Your task to perform on an android device: toggle notification dots Image 0: 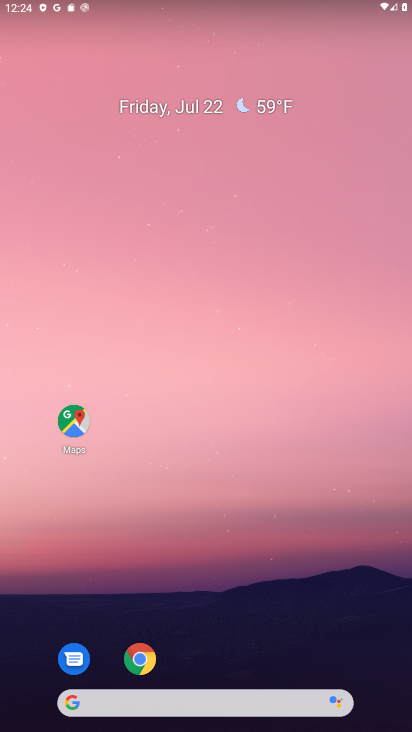
Step 0: drag from (260, 662) to (212, 0)
Your task to perform on an android device: toggle notification dots Image 1: 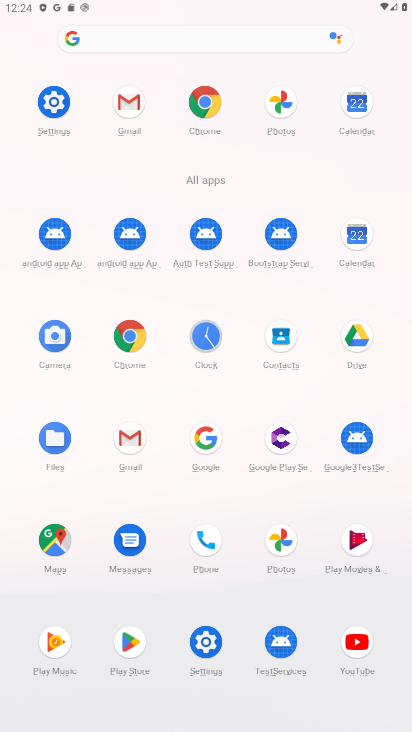
Step 1: click (66, 101)
Your task to perform on an android device: toggle notification dots Image 2: 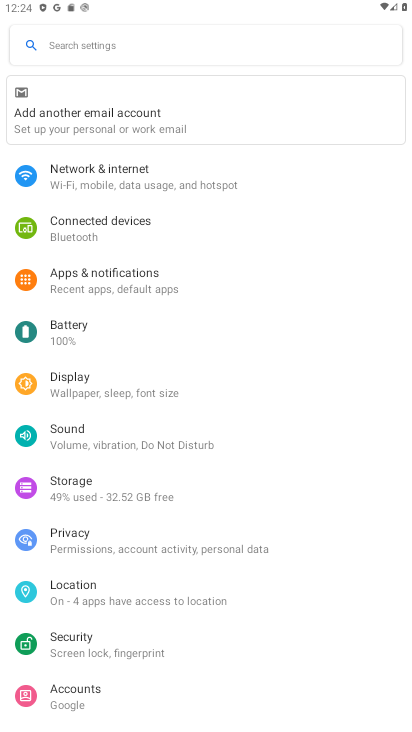
Step 2: click (113, 280)
Your task to perform on an android device: toggle notification dots Image 3: 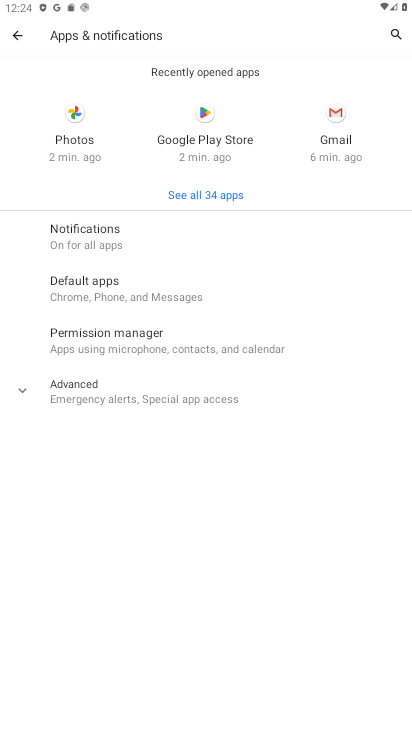
Step 3: click (54, 406)
Your task to perform on an android device: toggle notification dots Image 4: 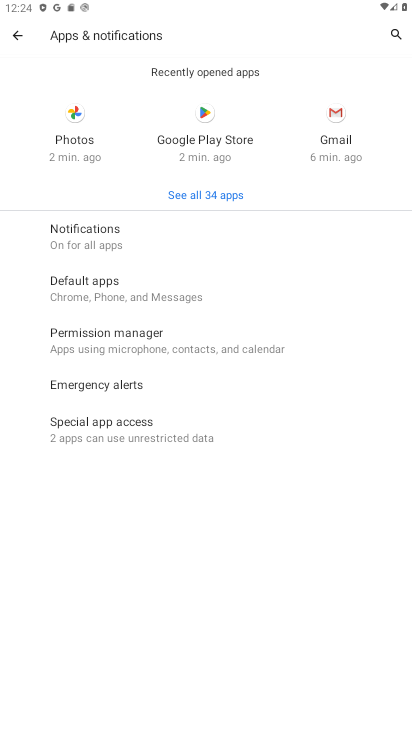
Step 4: click (58, 242)
Your task to perform on an android device: toggle notification dots Image 5: 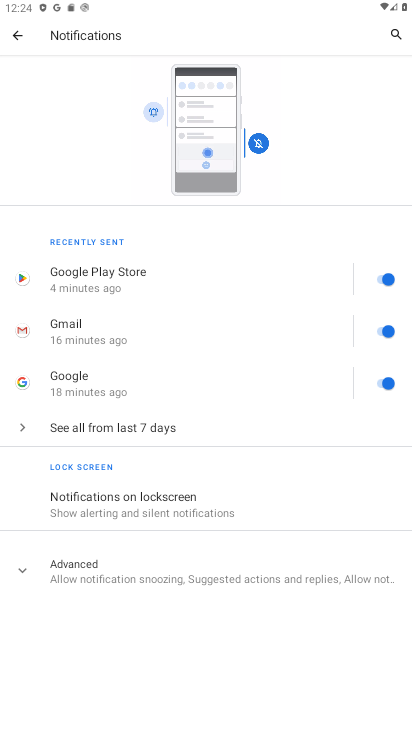
Step 5: click (91, 589)
Your task to perform on an android device: toggle notification dots Image 6: 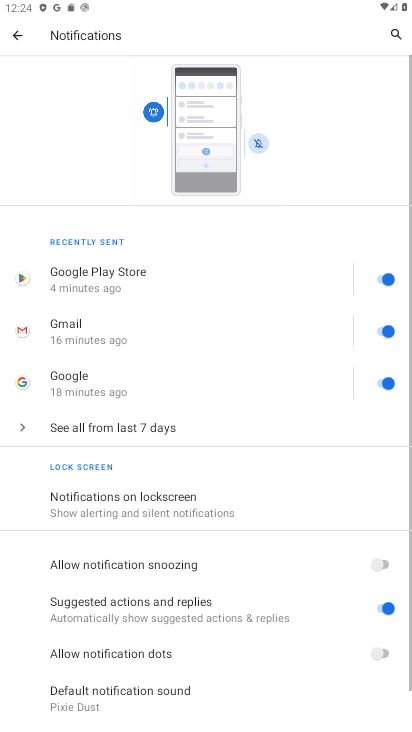
Step 6: drag from (117, 647) to (121, 296)
Your task to perform on an android device: toggle notification dots Image 7: 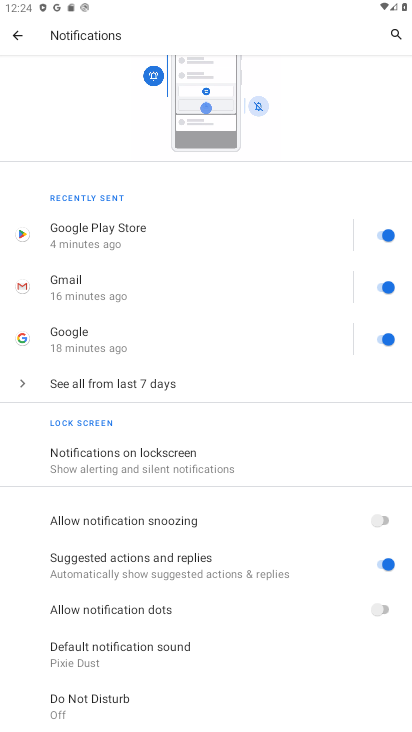
Step 7: click (381, 609)
Your task to perform on an android device: toggle notification dots Image 8: 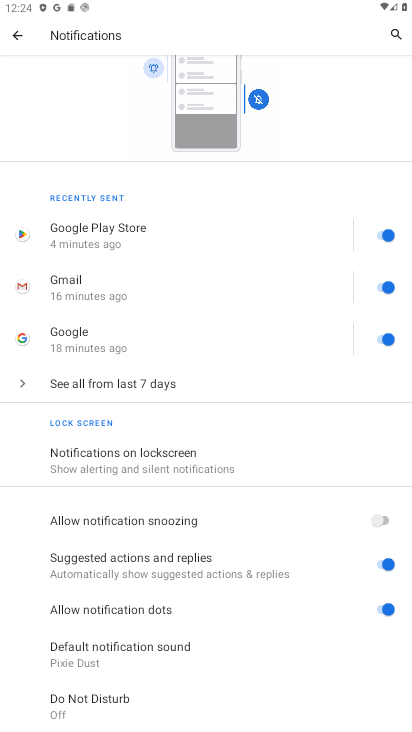
Step 8: task complete